Your task to perform on an android device: View the shopping cart on bestbuy. Add "lenovo thinkpad" to the cart on bestbuy, then select checkout. Image 0: 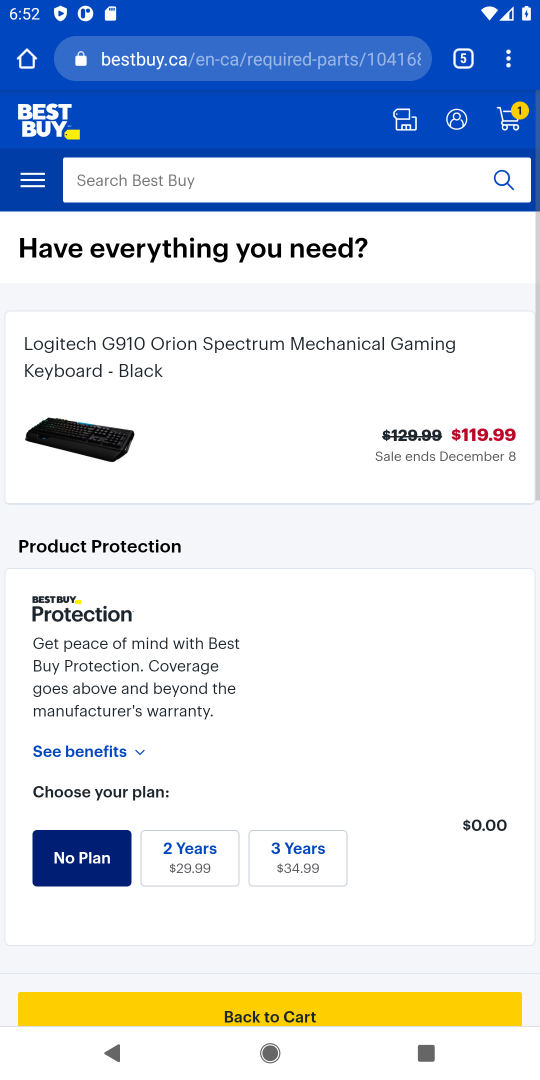
Step 0: press home button
Your task to perform on an android device: View the shopping cart on bestbuy. Add "lenovo thinkpad" to the cart on bestbuy, then select checkout. Image 1: 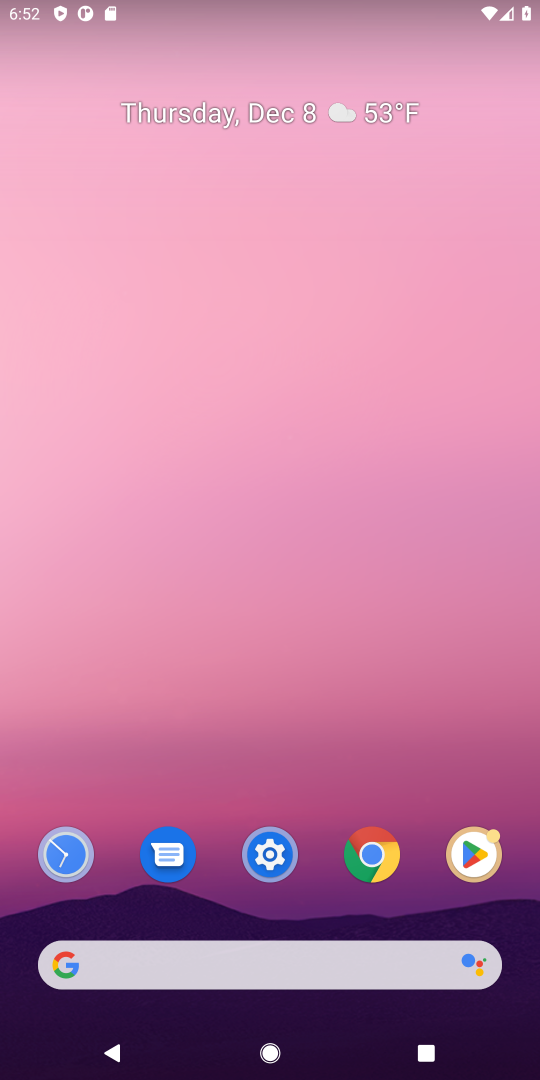
Step 1: click (99, 964)
Your task to perform on an android device: View the shopping cart on bestbuy. Add "lenovo thinkpad" to the cart on bestbuy, then select checkout. Image 2: 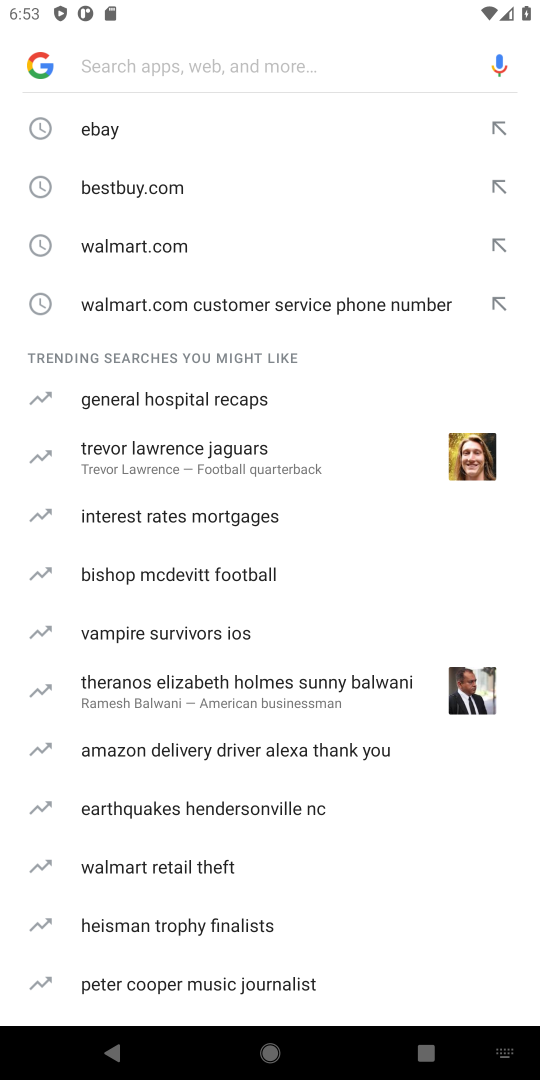
Step 2: press enter
Your task to perform on an android device: View the shopping cart on bestbuy. Add "lenovo thinkpad" to the cart on bestbuy, then select checkout. Image 3: 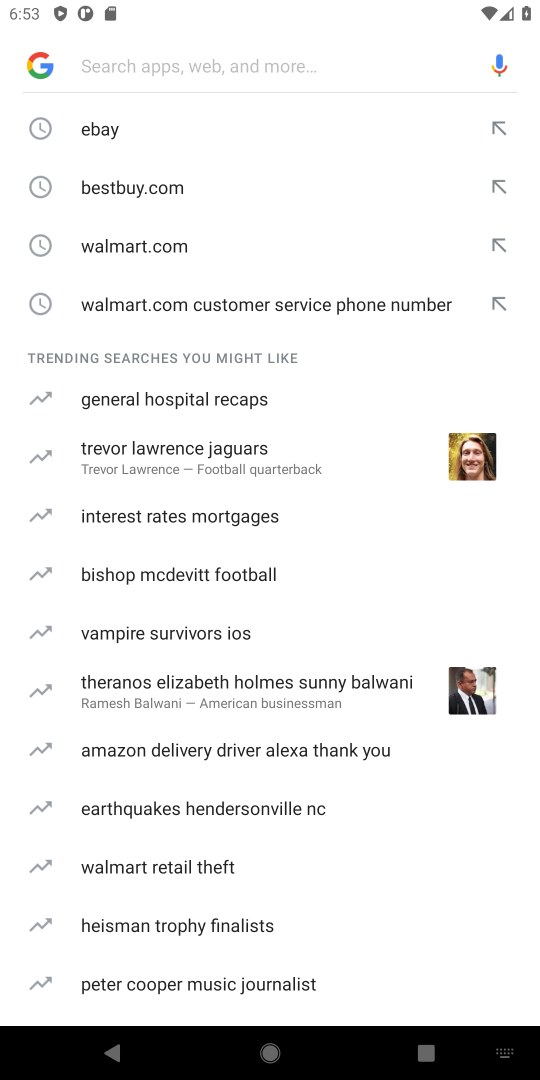
Step 3: type "bestbuy."
Your task to perform on an android device: View the shopping cart on bestbuy. Add "lenovo thinkpad" to the cart on bestbuy, then select checkout. Image 4: 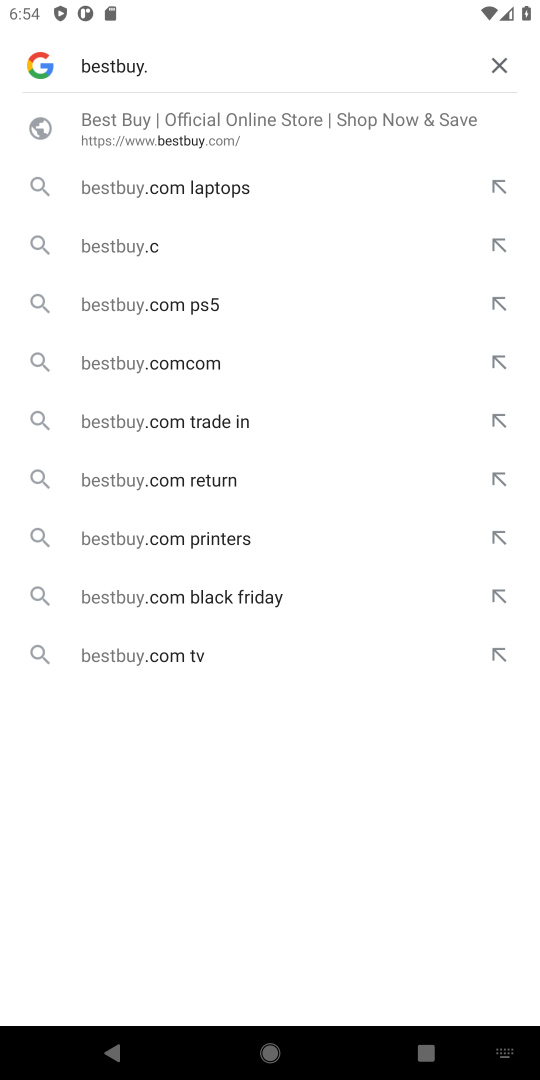
Step 4: press enter
Your task to perform on an android device: View the shopping cart on bestbuy. Add "lenovo thinkpad" to the cart on bestbuy, then select checkout. Image 5: 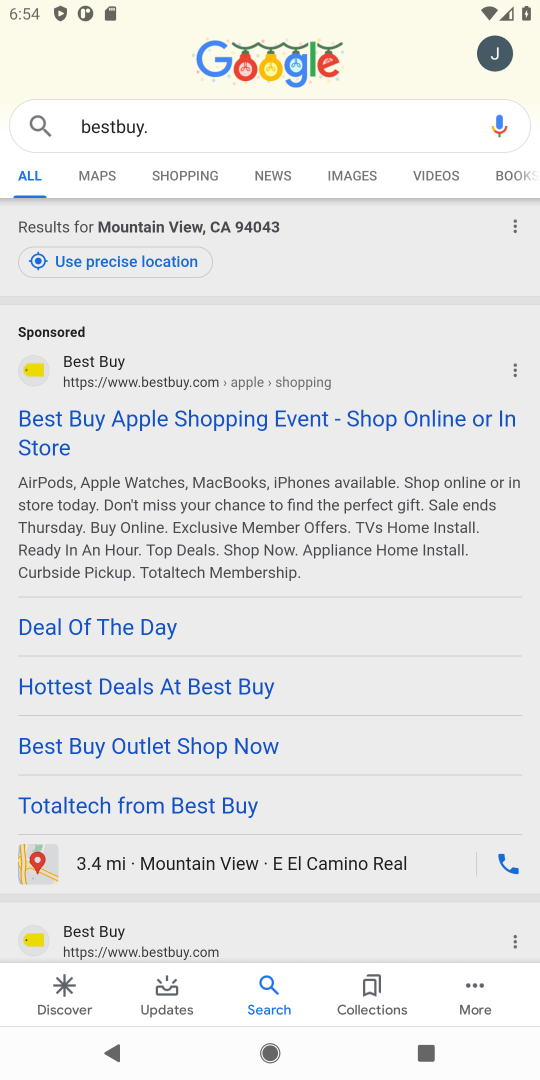
Step 5: click (261, 419)
Your task to perform on an android device: View the shopping cart on bestbuy. Add "lenovo thinkpad" to the cart on bestbuy, then select checkout. Image 6: 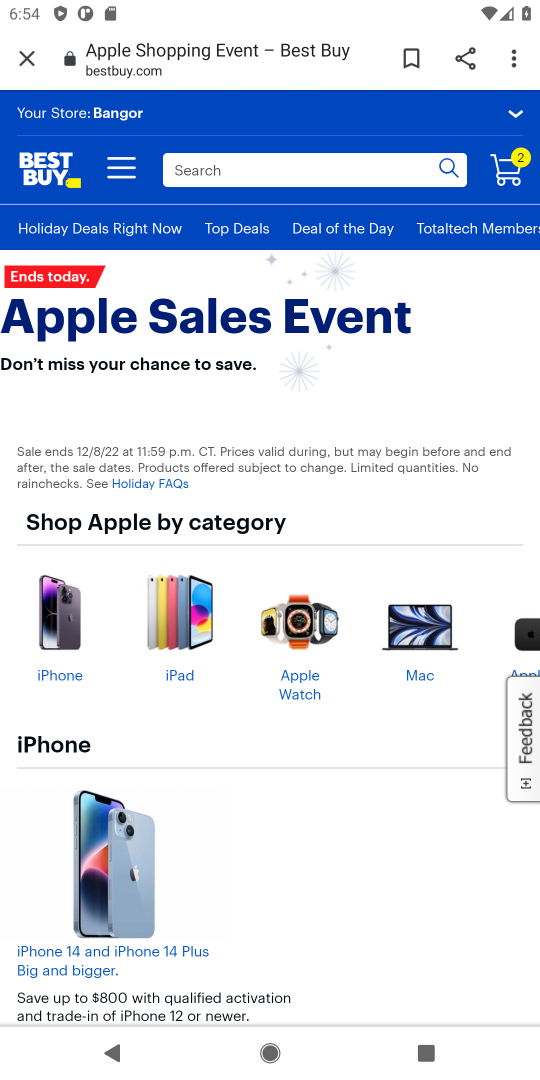
Step 6: click (507, 164)
Your task to perform on an android device: View the shopping cart on bestbuy. Add "lenovo thinkpad" to the cart on bestbuy, then select checkout. Image 7: 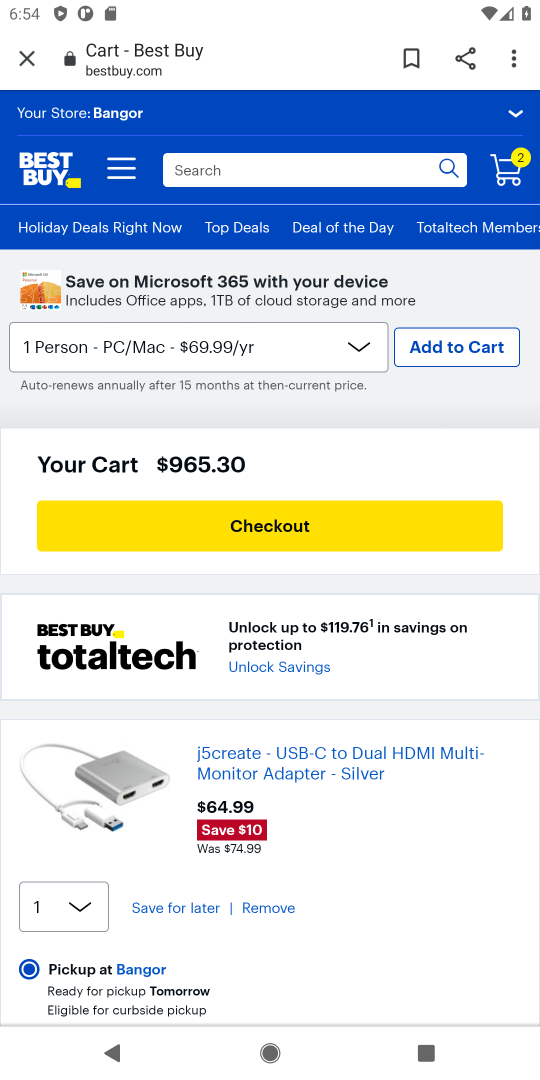
Step 7: click (216, 165)
Your task to perform on an android device: View the shopping cart on bestbuy. Add "lenovo thinkpad" to the cart on bestbuy, then select checkout. Image 8: 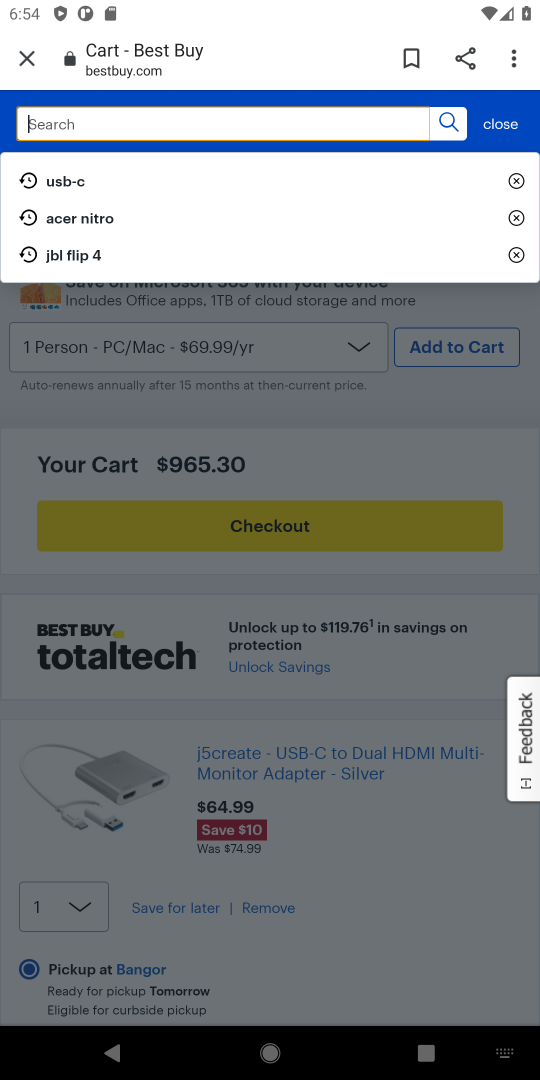
Step 8: type "lenovo thinkpad"
Your task to perform on an android device: View the shopping cart on bestbuy. Add "lenovo thinkpad" to the cart on bestbuy, then select checkout. Image 9: 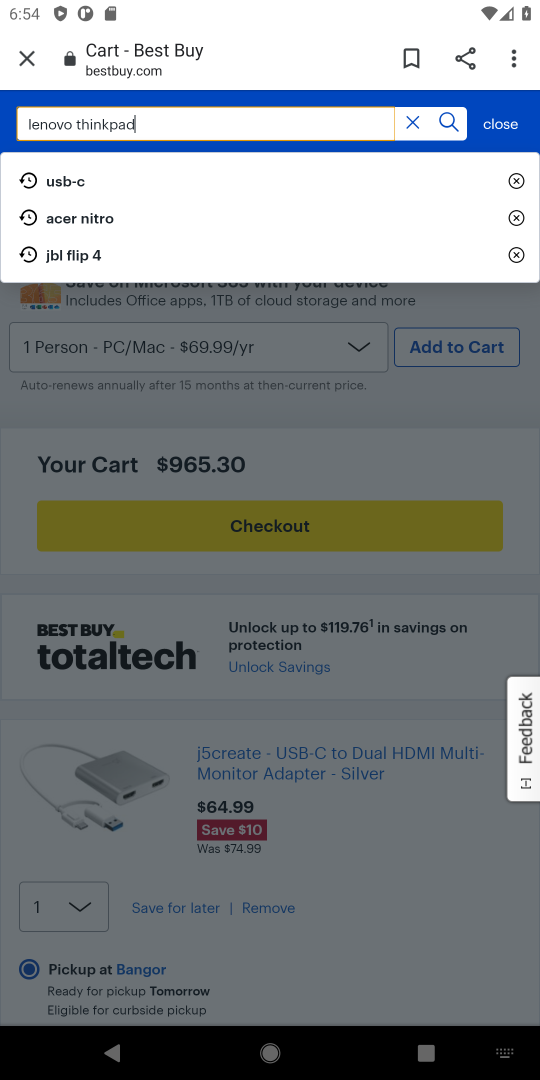
Step 9: press enter
Your task to perform on an android device: View the shopping cart on bestbuy. Add "lenovo thinkpad" to the cart on bestbuy, then select checkout. Image 10: 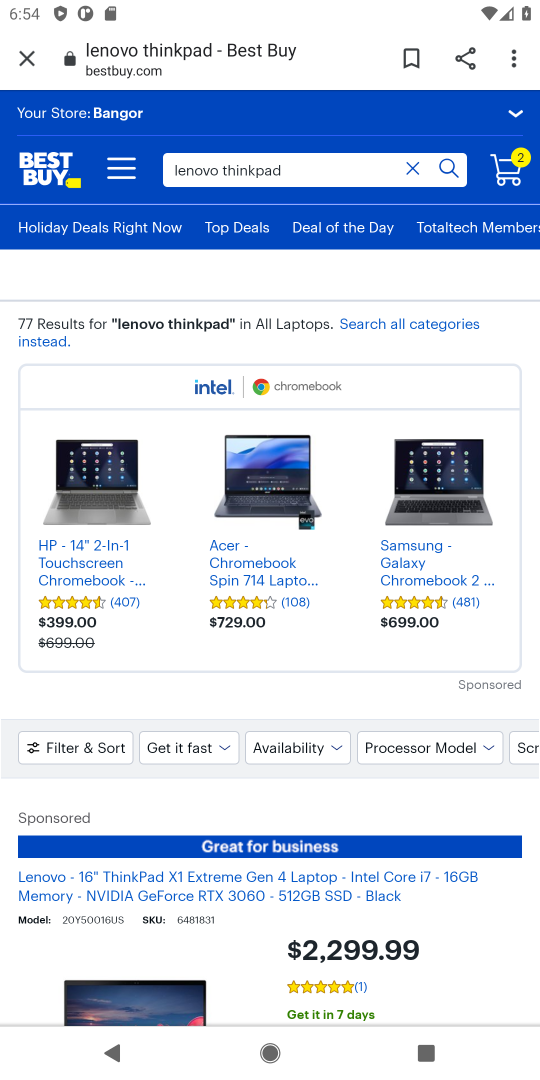
Step 10: drag from (237, 895) to (287, 526)
Your task to perform on an android device: View the shopping cart on bestbuy. Add "lenovo thinkpad" to the cart on bestbuy, then select checkout. Image 11: 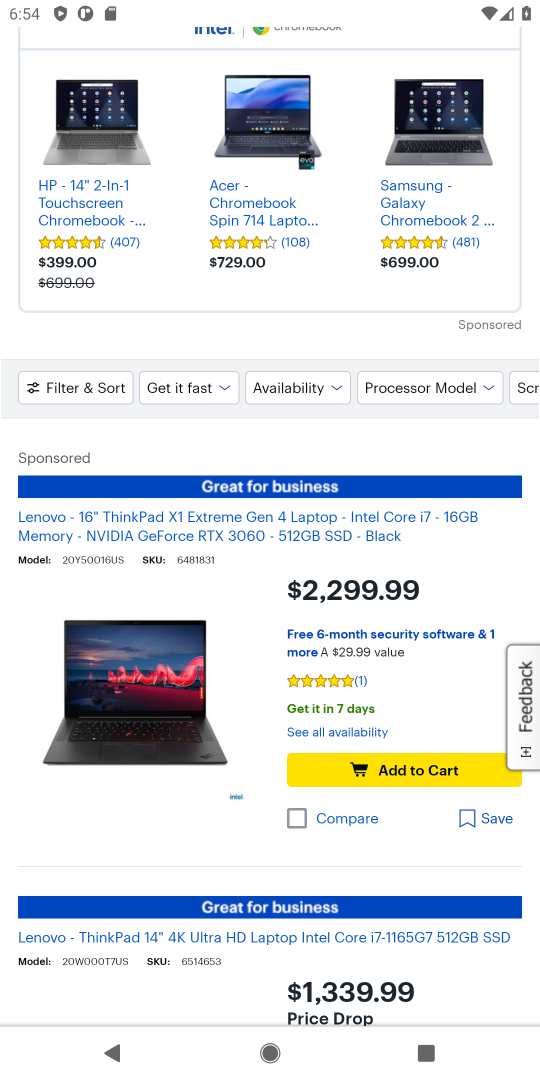
Step 11: click (417, 772)
Your task to perform on an android device: View the shopping cart on bestbuy. Add "lenovo thinkpad" to the cart on bestbuy, then select checkout. Image 12: 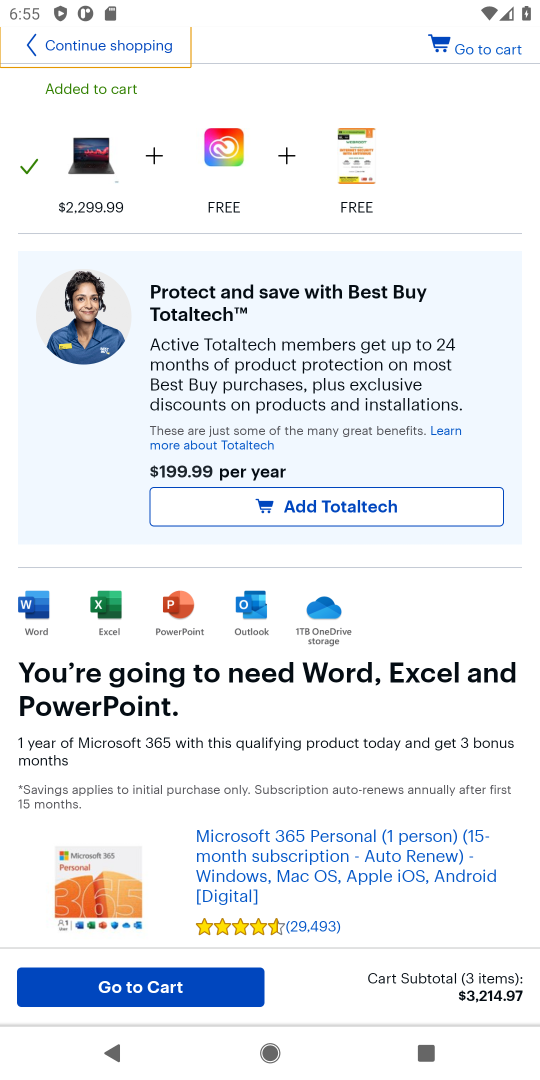
Step 12: click (129, 989)
Your task to perform on an android device: View the shopping cart on bestbuy. Add "lenovo thinkpad" to the cart on bestbuy, then select checkout. Image 13: 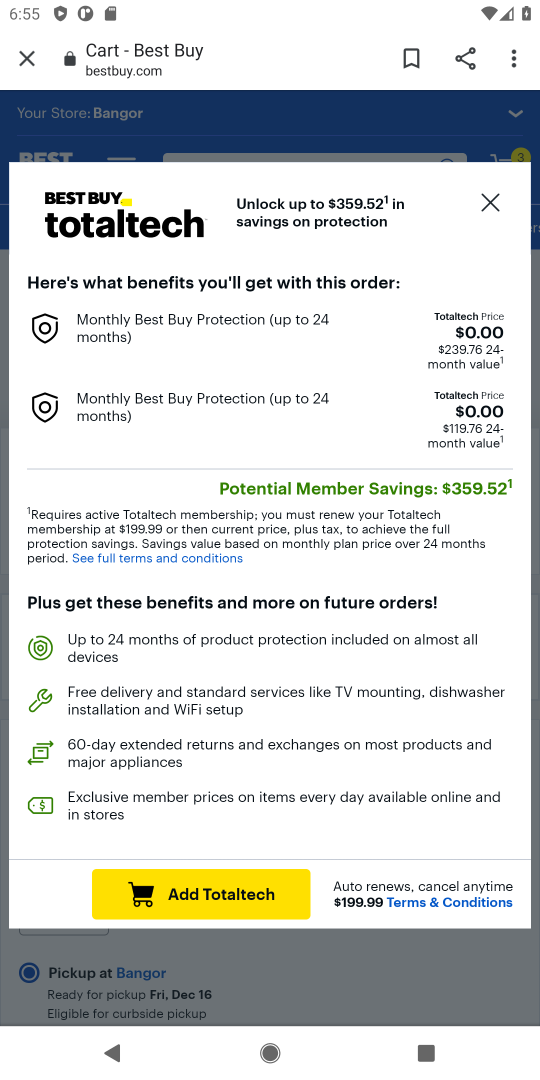
Step 13: click (487, 200)
Your task to perform on an android device: View the shopping cart on bestbuy. Add "lenovo thinkpad" to the cart on bestbuy, then select checkout. Image 14: 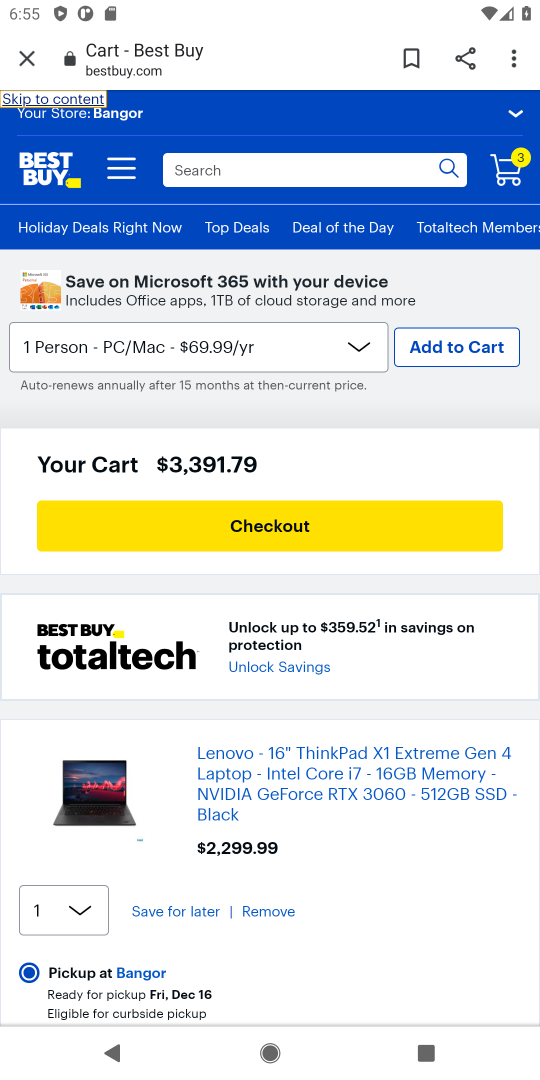
Step 14: click (290, 528)
Your task to perform on an android device: View the shopping cart on bestbuy. Add "lenovo thinkpad" to the cart on bestbuy, then select checkout. Image 15: 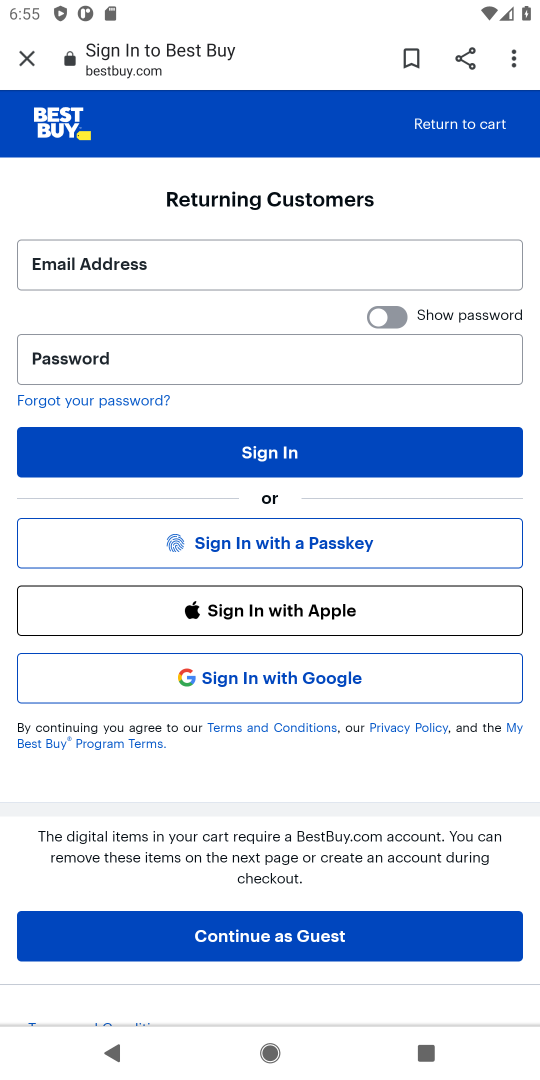
Step 15: task complete